Your task to perform on an android device: Go to Amazon Image 0: 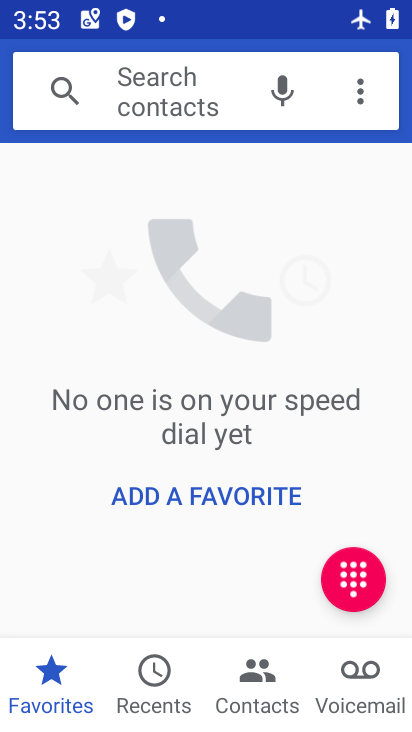
Step 0: press home button
Your task to perform on an android device: Go to Amazon Image 1: 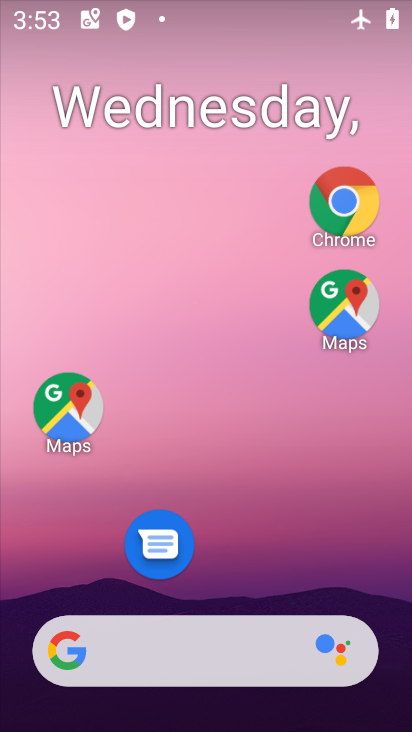
Step 1: drag from (249, 505) to (253, 85)
Your task to perform on an android device: Go to Amazon Image 2: 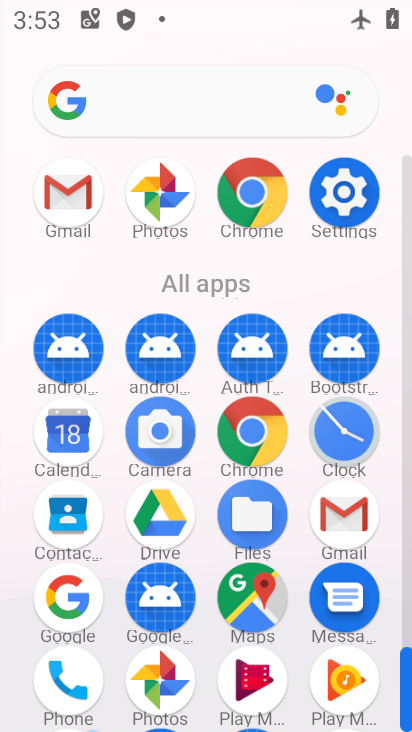
Step 2: click (345, 192)
Your task to perform on an android device: Go to Amazon Image 3: 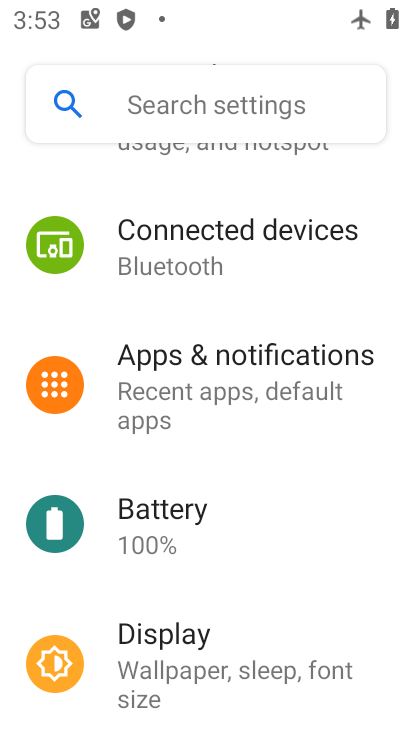
Step 3: drag from (335, 190) to (287, 504)
Your task to perform on an android device: Go to Amazon Image 4: 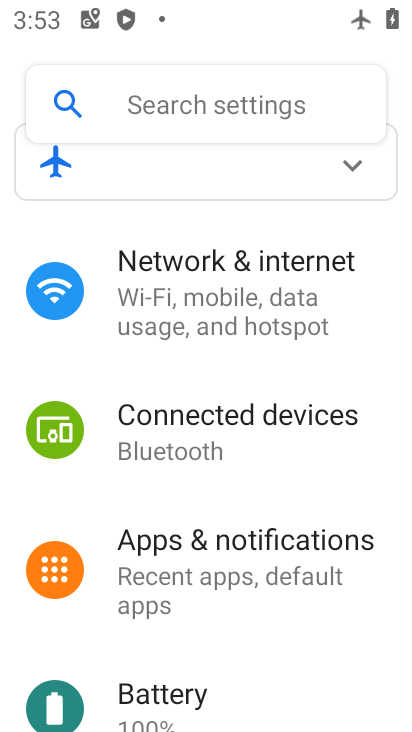
Step 4: click (349, 166)
Your task to perform on an android device: Go to Amazon Image 5: 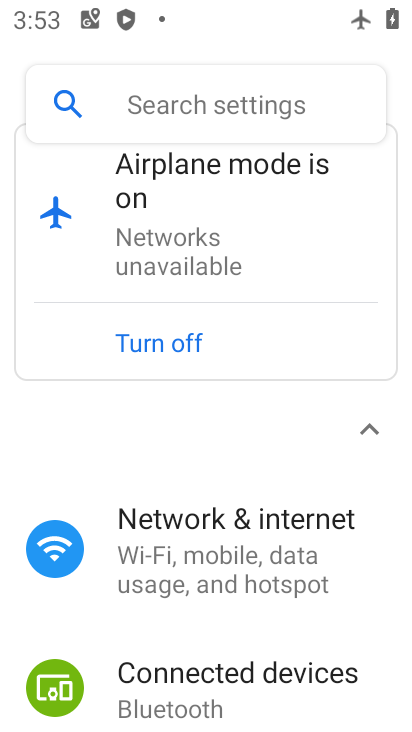
Step 5: click (174, 337)
Your task to perform on an android device: Go to Amazon Image 6: 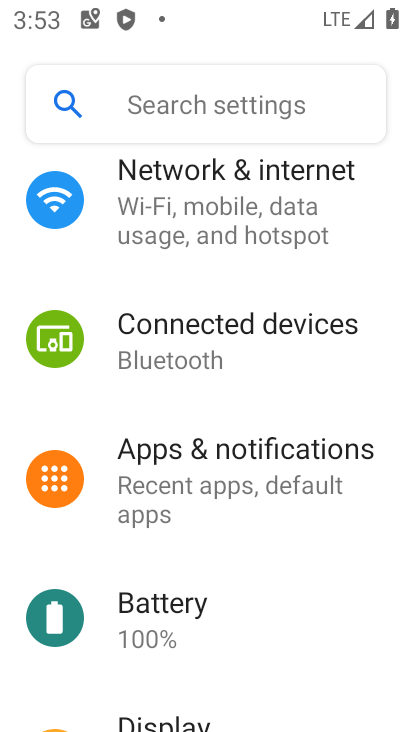
Step 6: press back button
Your task to perform on an android device: Go to Amazon Image 7: 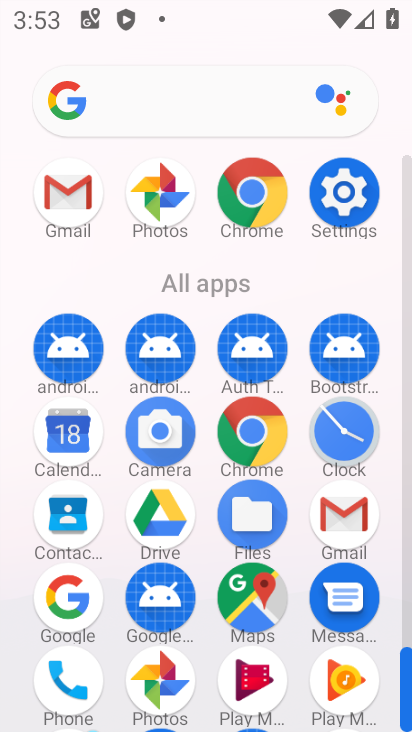
Step 7: click (248, 240)
Your task to perform on an android device: Go to Amazon Image 8: 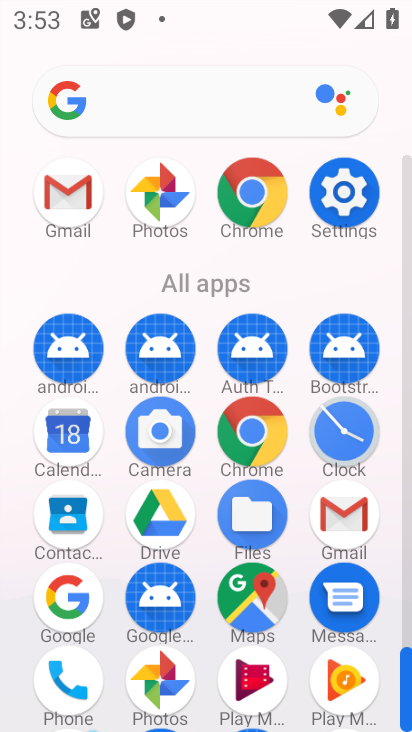
Step 8: click (252, 208)
Your task to perform on an android device: Go to Amazon Image 9: 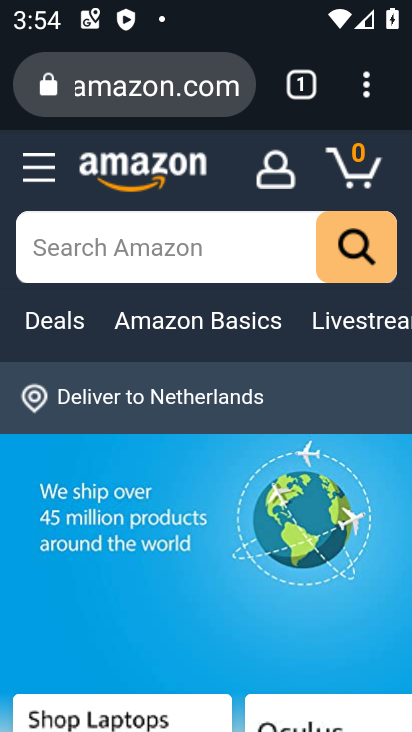
Step 9: task complete